Your task to perform on an android device: Do I have any events tomorrow? Image 0: 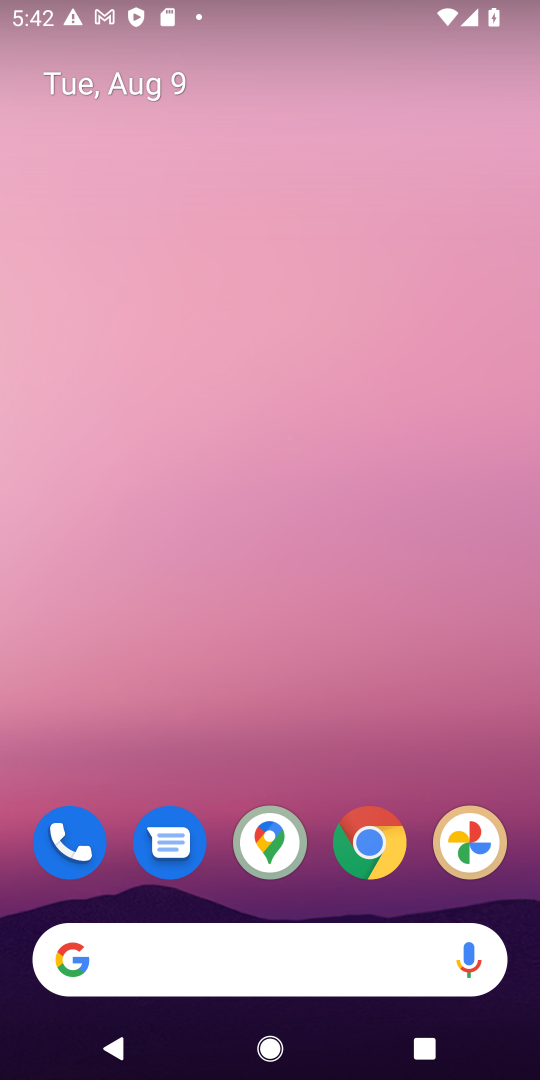
Step 0: drag from (265, 957) to (260, 67)
Your task to perform on an android device: Do I have any events tomorrow? Image 1: 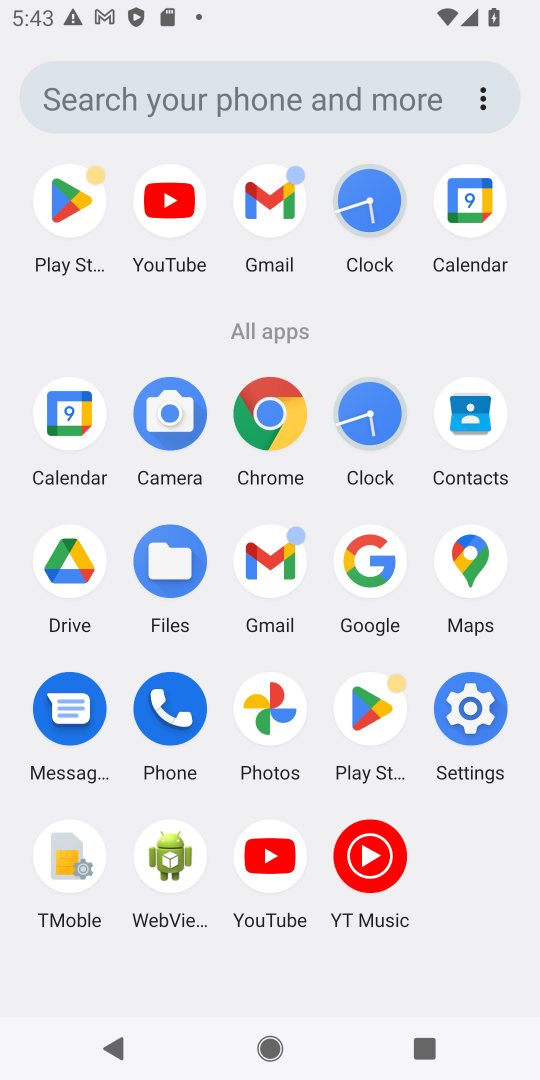
Step 1: click (50, 441)
Your task to perform on an android device: Do I have any events tomorrow? Image 2: 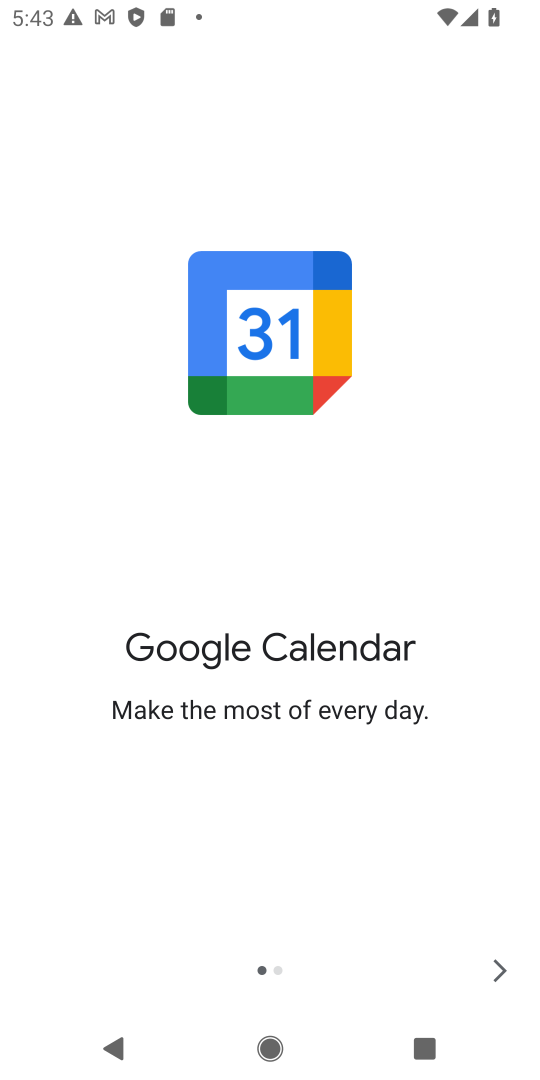
Step 2: click (501, 987)
Your task to perform on an android device: Do I have any events tomorrow? Image 3: 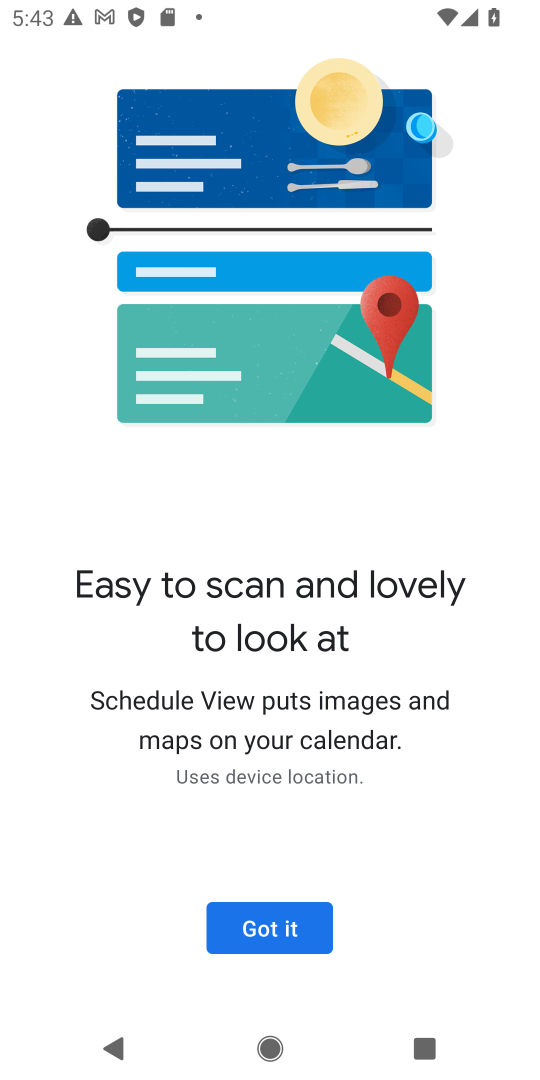
Step 3: click (265, 909)
Your task to perform on an android device: Do I have any events tomorrow? Image 4: 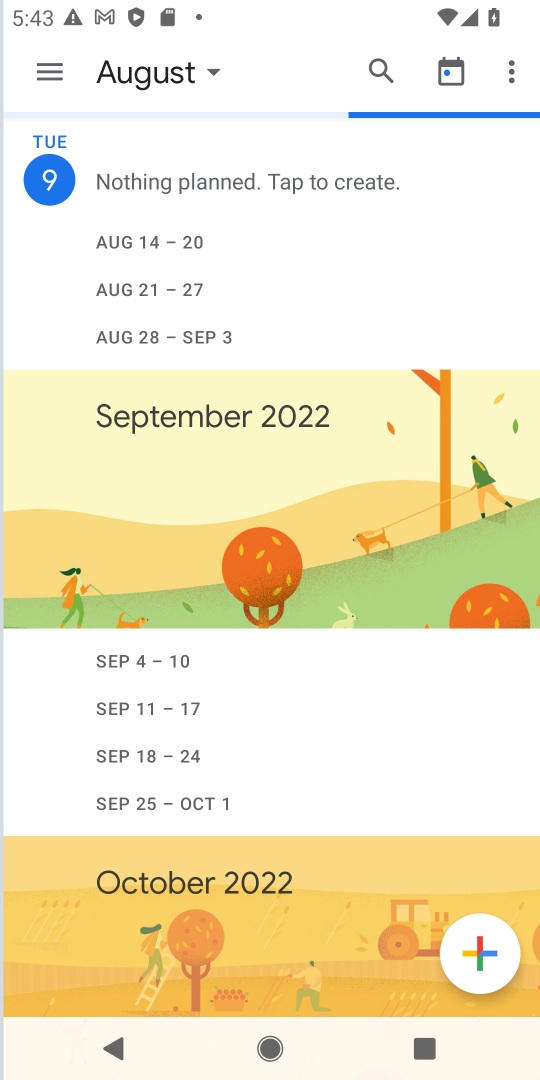
Step 4: click (286, 926)
Your task to perform on an android device: Do I have any events tomorrow? Image 5: 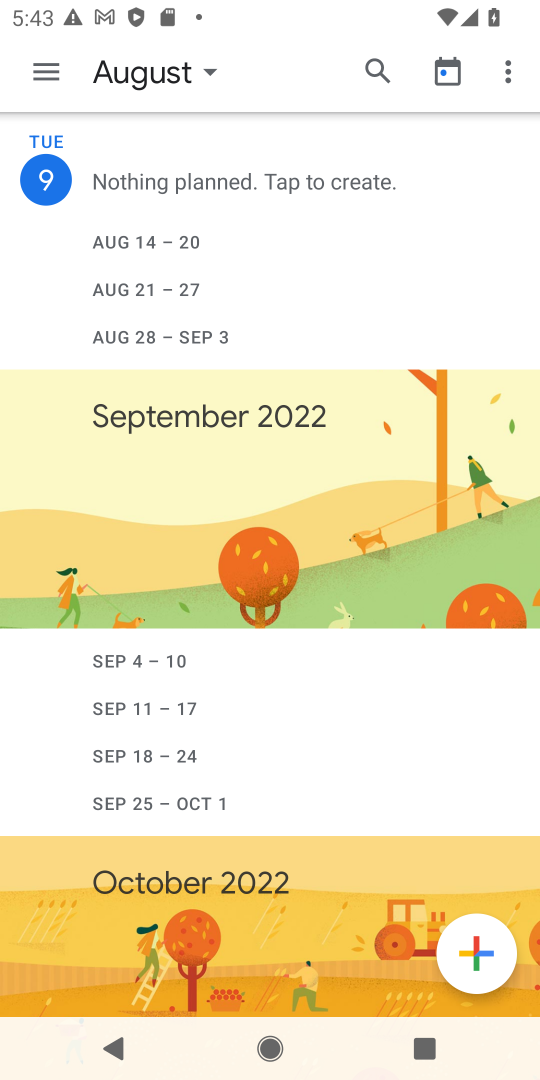
Step 5: click (132, 92)
Your task to perform on an android device: Do I have any events tomorrow? Image 6: 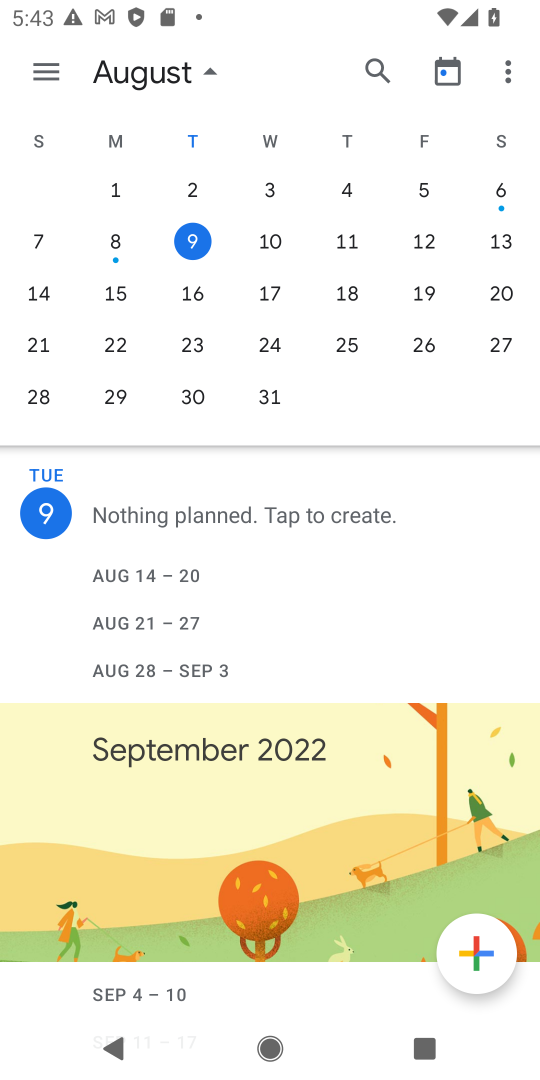
Step 6: click (282, 239)
Your task to perform on an android device: Do I have any events tomorrow? Image 7: 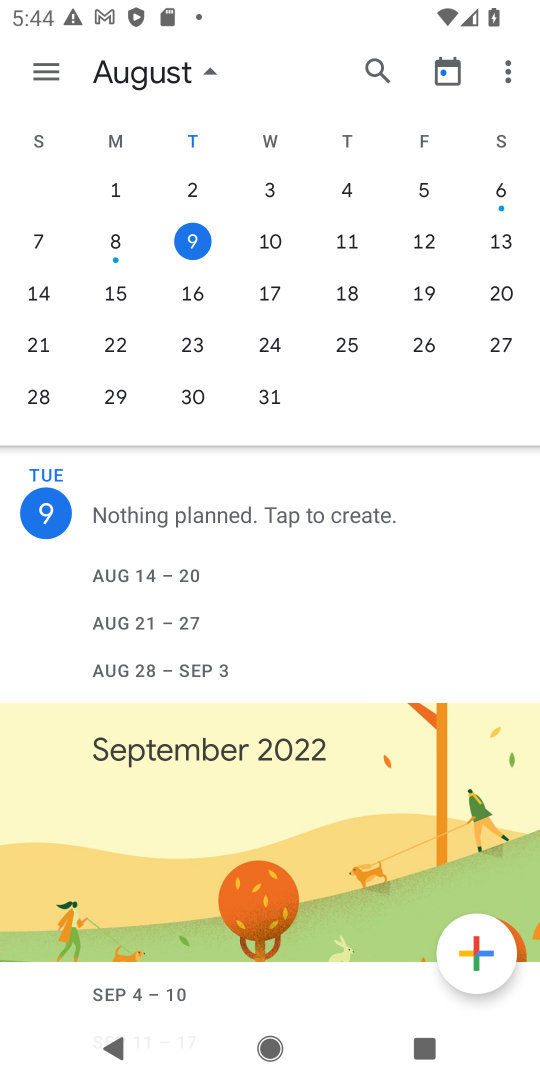
Step 7: click (276, 238)
Your task to perform on an android device: Do I have any events tomorrow? Image 8: 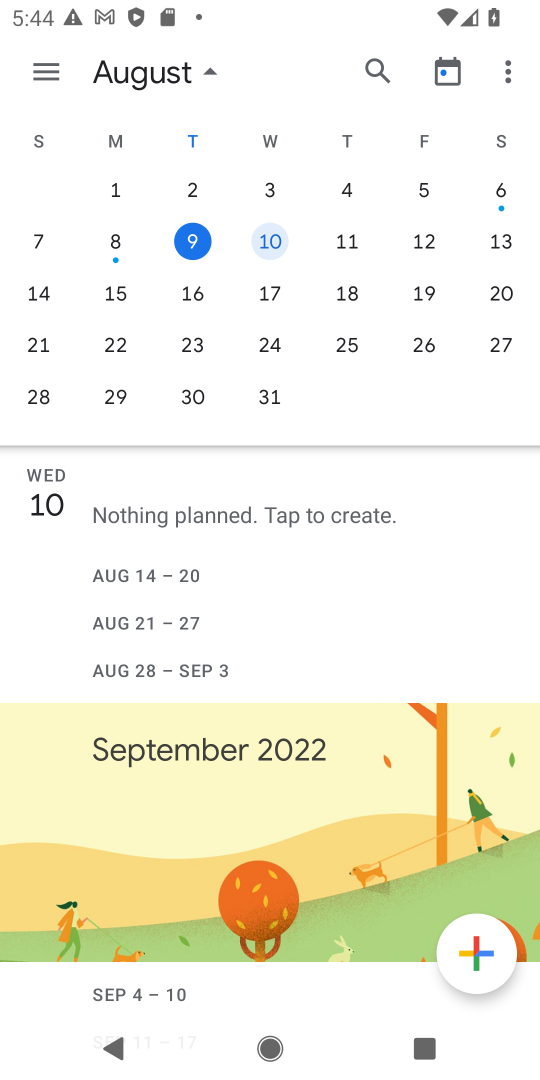
Step 8: task complete